Your task to perform on an android device: change the clock display to digital Image 0: 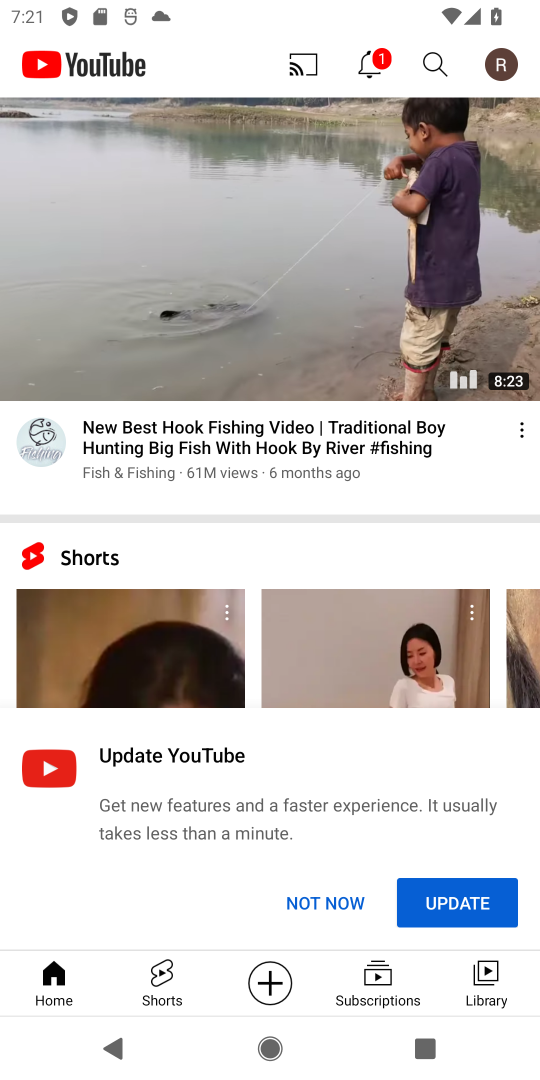
Step 0: press home button
Your task to perform on an android device: change the clock display to digital Image 1: 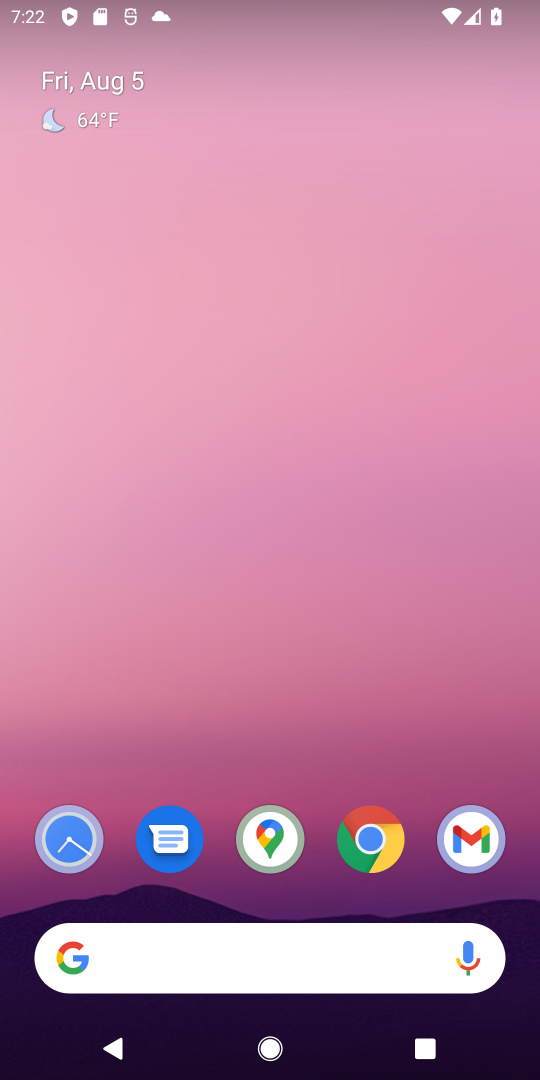
Step 1: drag from (321, 867) to (325, 88)
Your task to perform on an android device: change the clock display to digital Image 2: 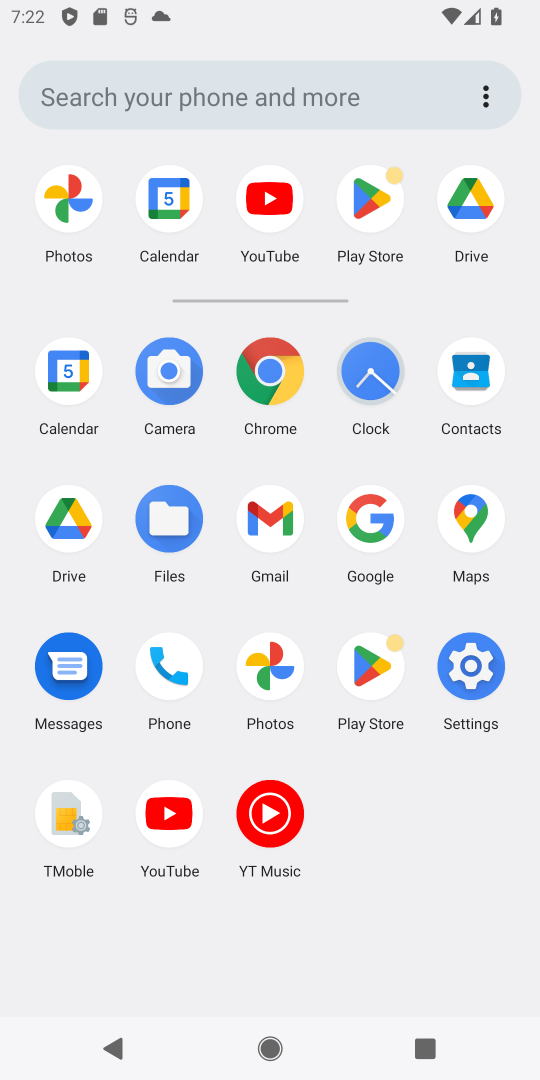
Step 2: click (366, 363)
Your task to perform on an android device: change the clock display to digital Image 3: 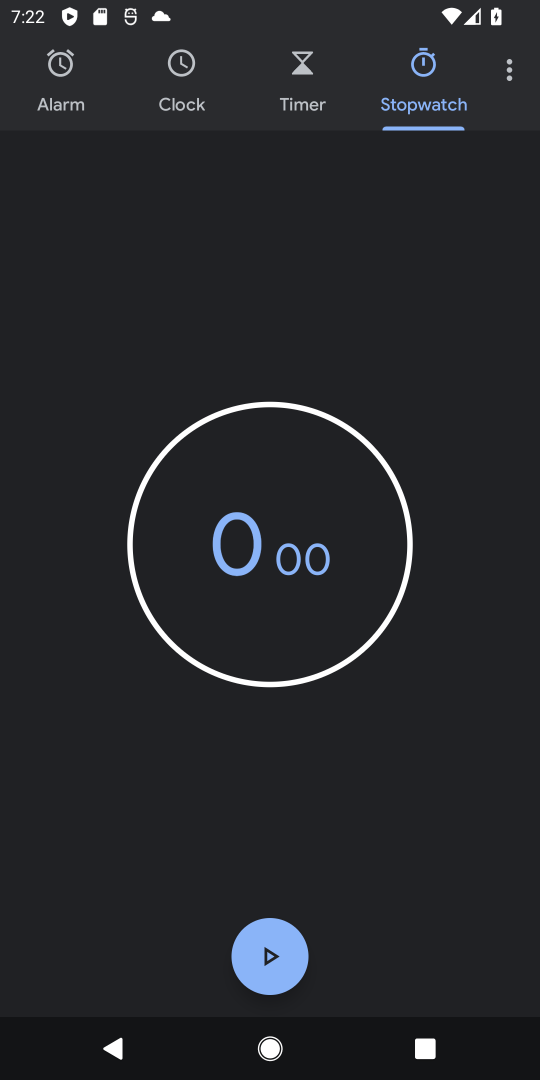
Step 3: click (508, 77)
Your task to perform on an android device: change the clock display to digital Image 4: 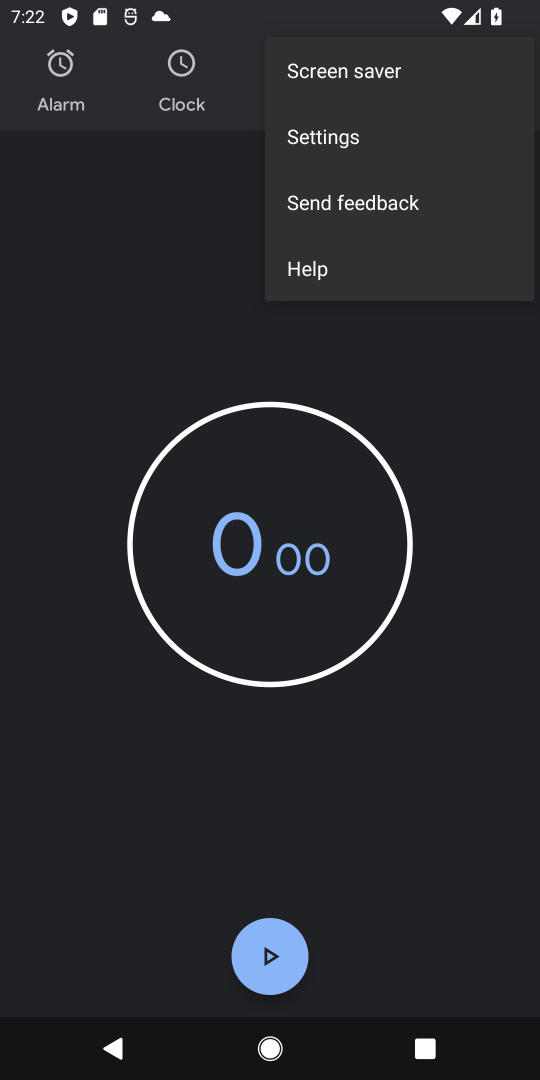
Step 4: click (344, 138)
Your task to perform on an android device: change the clock display to digital Image 5: 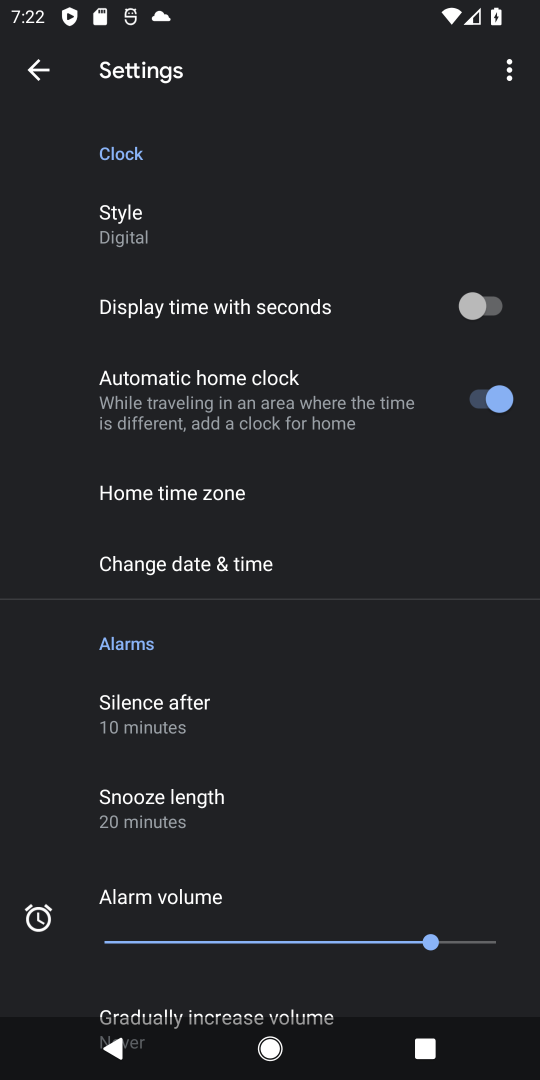
Step 5: task complete